Your task to perform on an android device: Go to wifi settings Image 0: 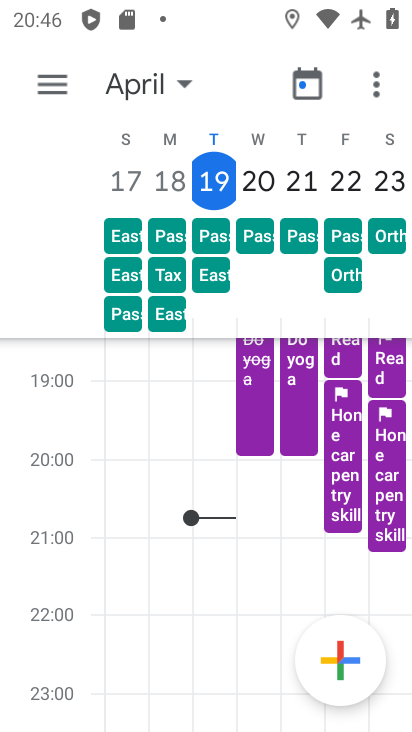
Step 0: press home button
Your task to perform on an android device: Go to wifi settings Image 1: 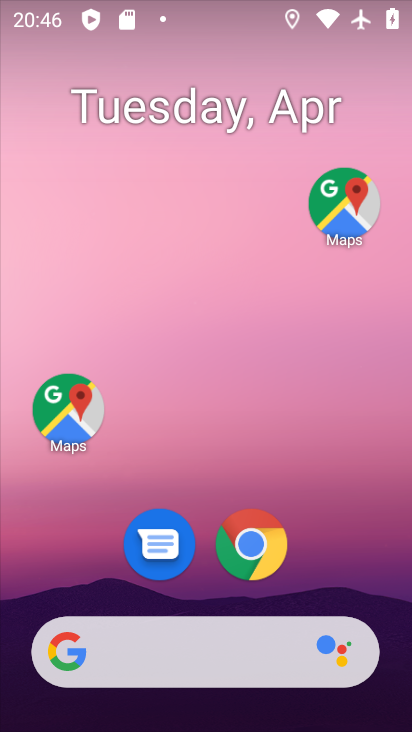
Step 1: drag from (215, 657) to (356, 71)
Your task to perform on an android device: Go to wifi settings Image 2: 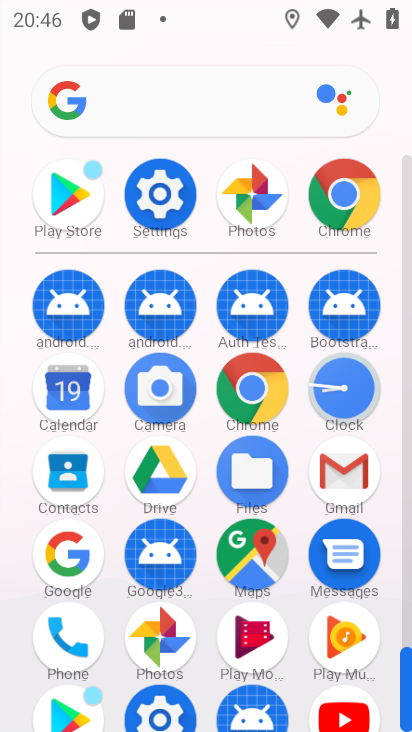
Step 2: click (160, 197)
Your task to perform on an android device: Go to wifi settings Image 3: 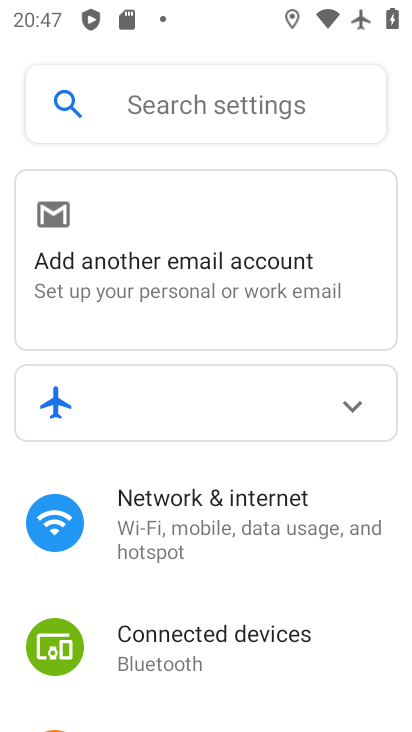
Step 3: click (272, 512)
Your task to perform on an android device: Go to wifi settings Image 4: 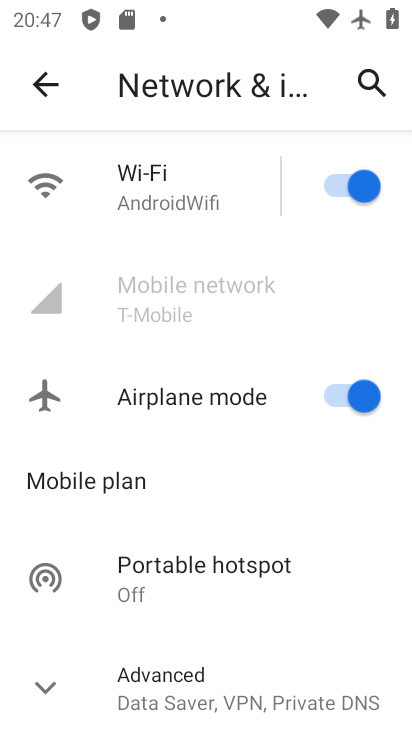
Step 4: click (165, 199)
Your task to perform on an android device: Go to wifi settings Image 5: 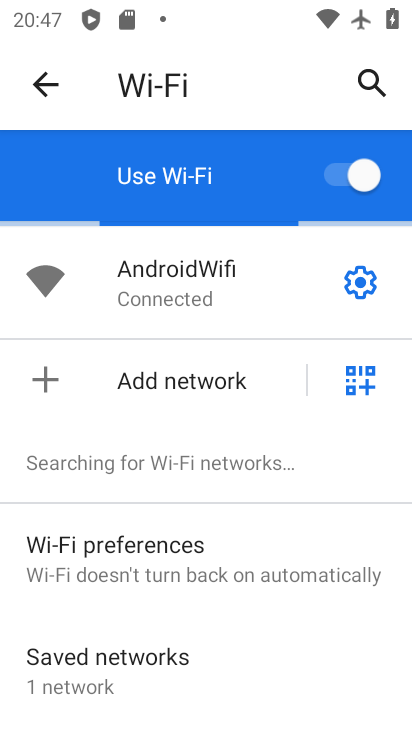
Step 5: task complete